Your task to perform on an android device: Go to CNN.com Image 0: 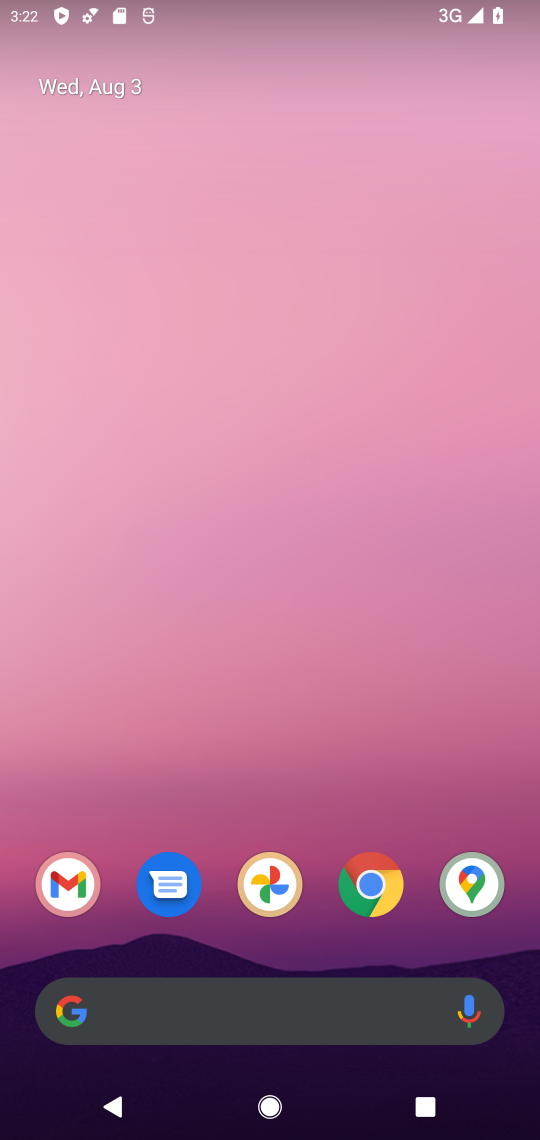
Step 0: click (286, 1012)
Your task to perform on an android device: Go to CNN.com Image 1: 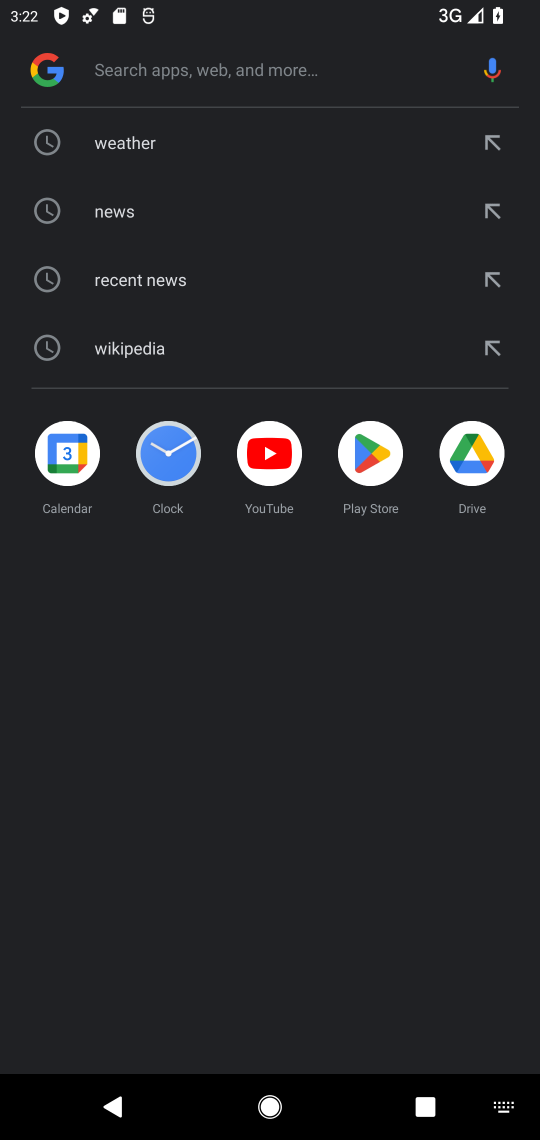
Step 1: type "cnn"
Your task to perform on an android device: Go to CNN.com Image 2: 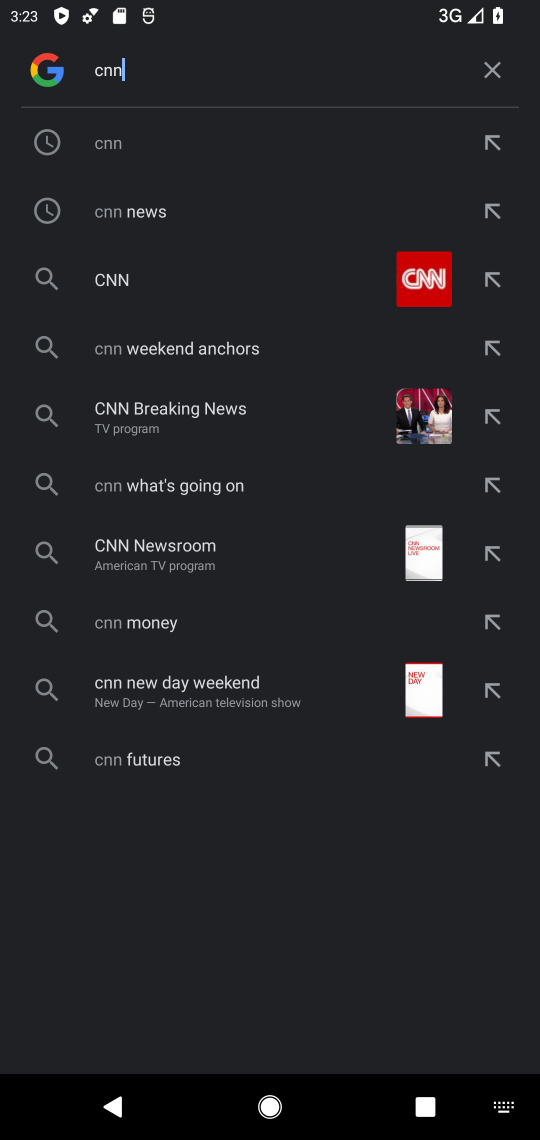
Step 2: click (114, 145)
Your task to perform on an android device: Go to CNN.com Image 3: 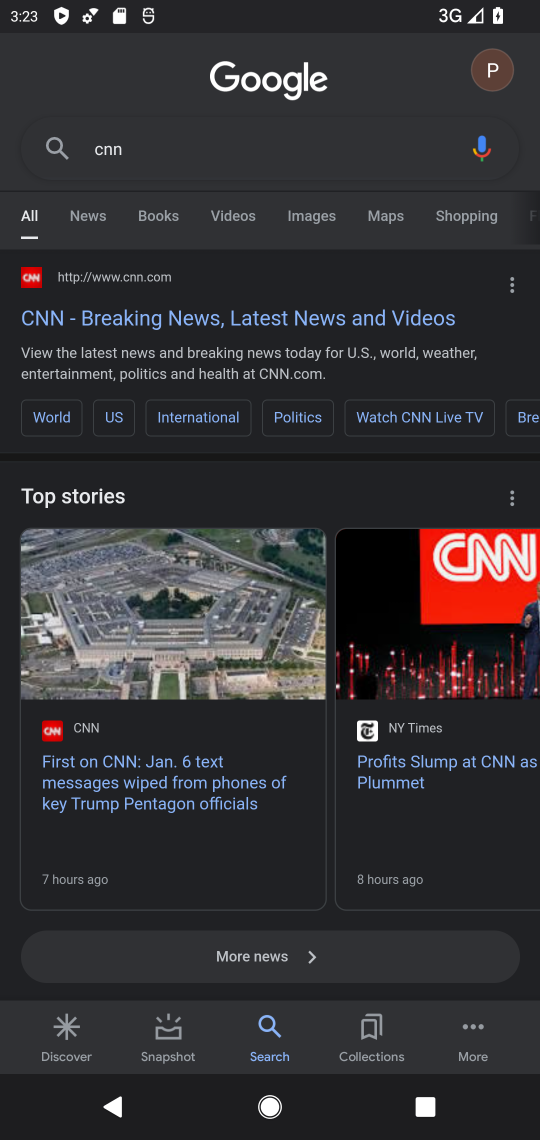
Step 3: click (287, 342)
Your task to perform on an android device: Go to CNN.com Image 4: 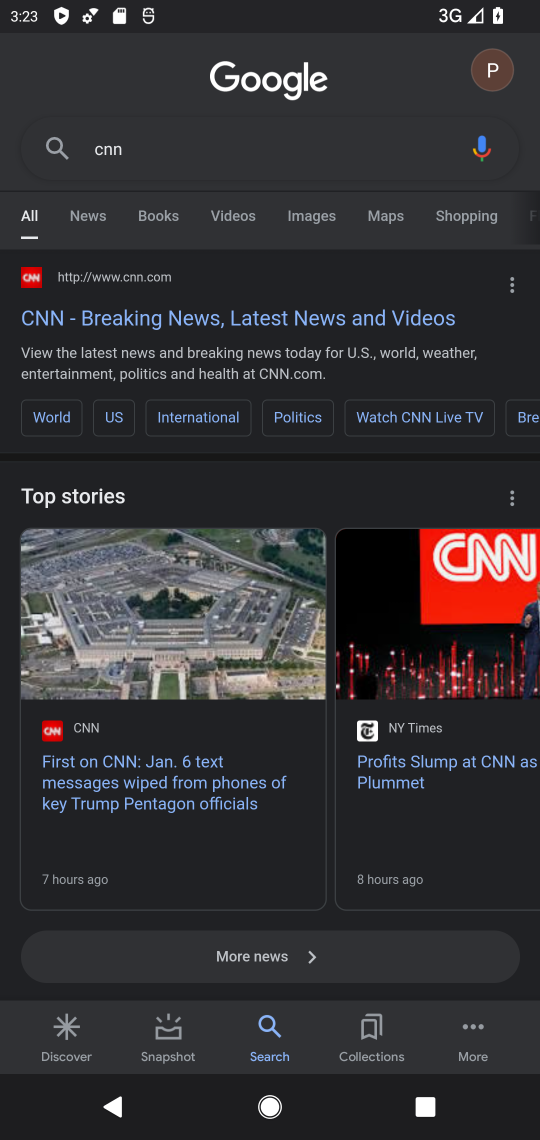
Step 4: task complete